Your task to perform on an android device: Set the phone to "Do not disturb". Image 0: 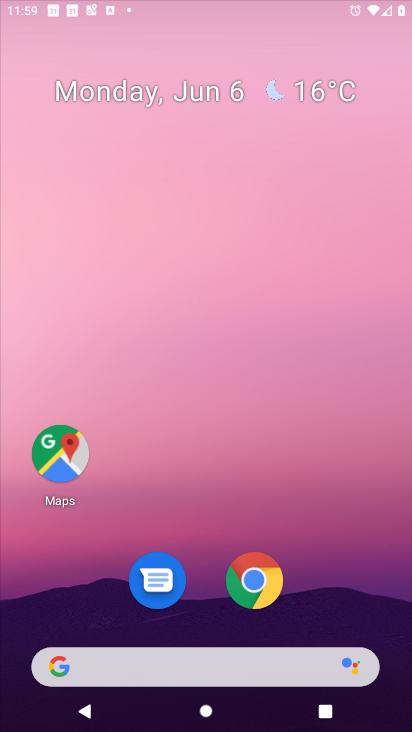
Step 0: drag from (365, 584) to (11, 466)
Your task to perform on an android device: Set the phone to "Do not disturb". Image 1: 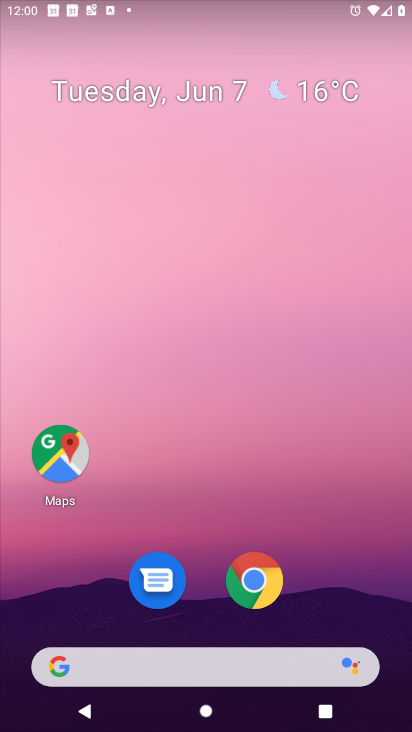
Step 1: drag from (348, 598) to (387, 8)
Your task to perform on an android device: Set the phone to "Do not disturb". Image 2: 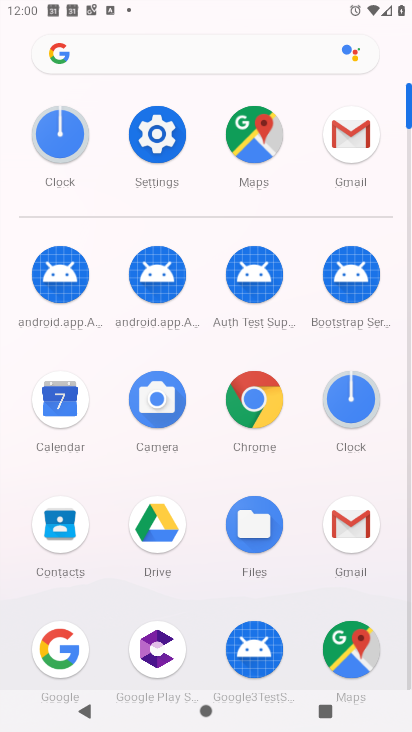
Step 2: click (174, 130)
Your task to perform on an android device: Set the phone to "Do not disturb". Image 3: 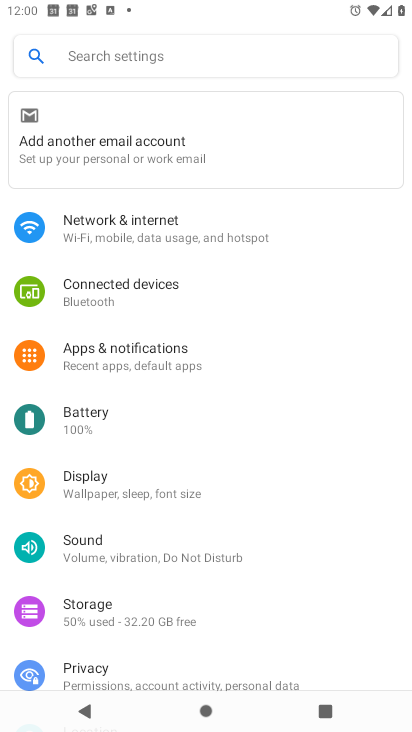
Step 3: click (131, 544)
Your task to perform on an android device: Set the phone to "Do not disturb". Image 4: 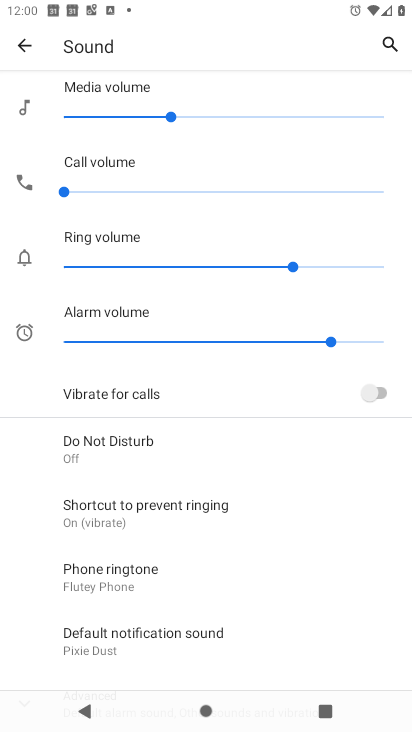
Step 4: task complete